Your task to perform on an android device: turn on sleep mode Image 0: 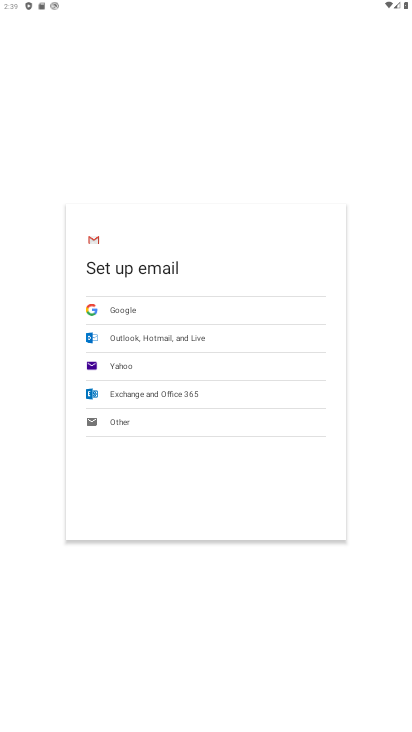
Step 0: press home button
Your task to perform on an android device: turn on sleep mode Image 1: 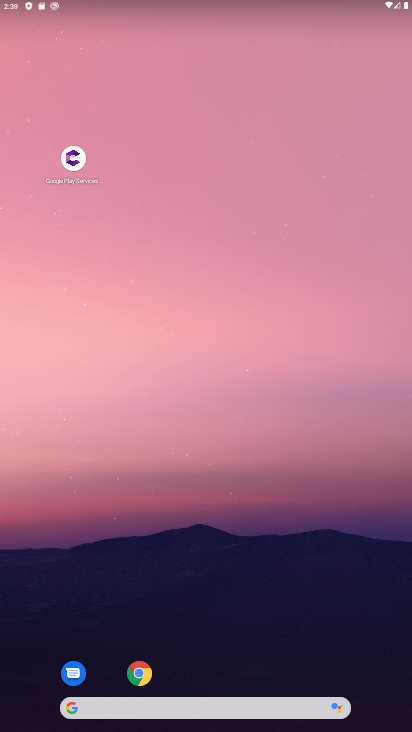
Step 1: drag from (247, 655) to (350, 72)
Your task to perform on an android device: turn on sleep mode Image 2: 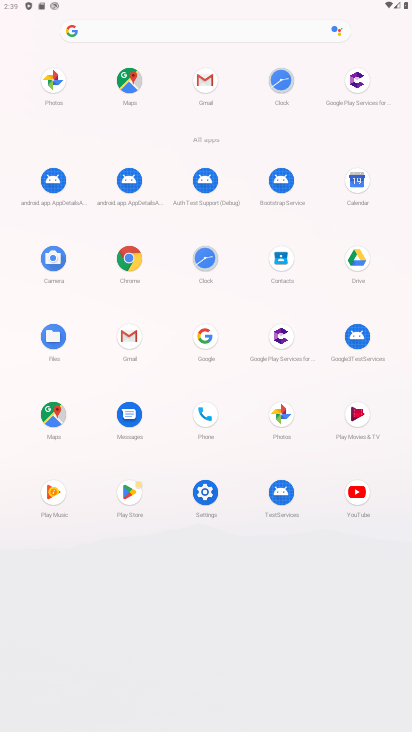
Step 2: click (215, 501)
Your task to perform on an android device: turn on sleep mode Image 3: 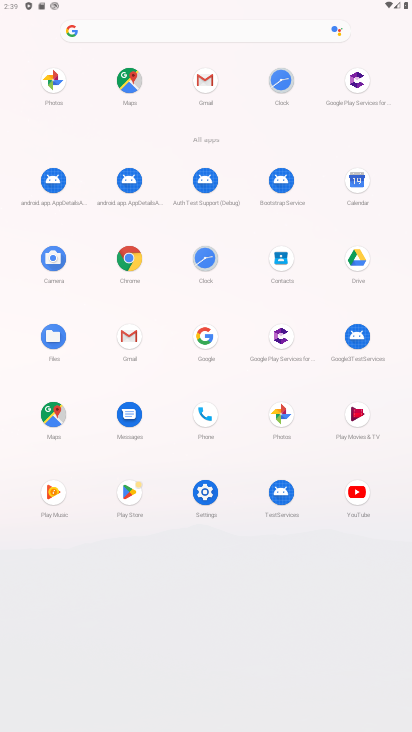
Step 3: click (212, 494)
Your task to perform on an android device: turn on sleep mode Image 4: 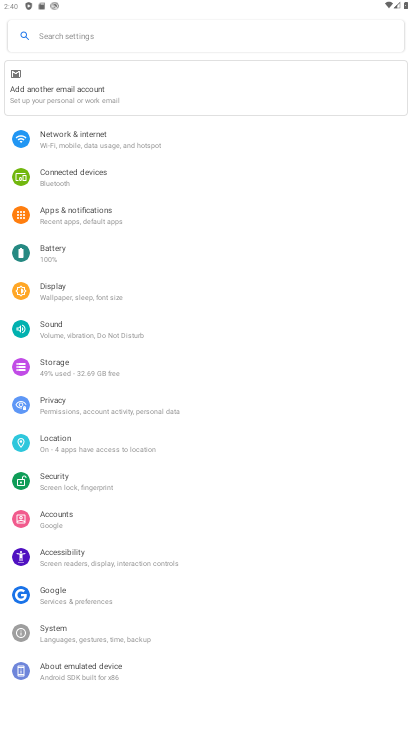
Step 4: task complete